Your task to perform on an android device: Open Wikipedia Image 0: 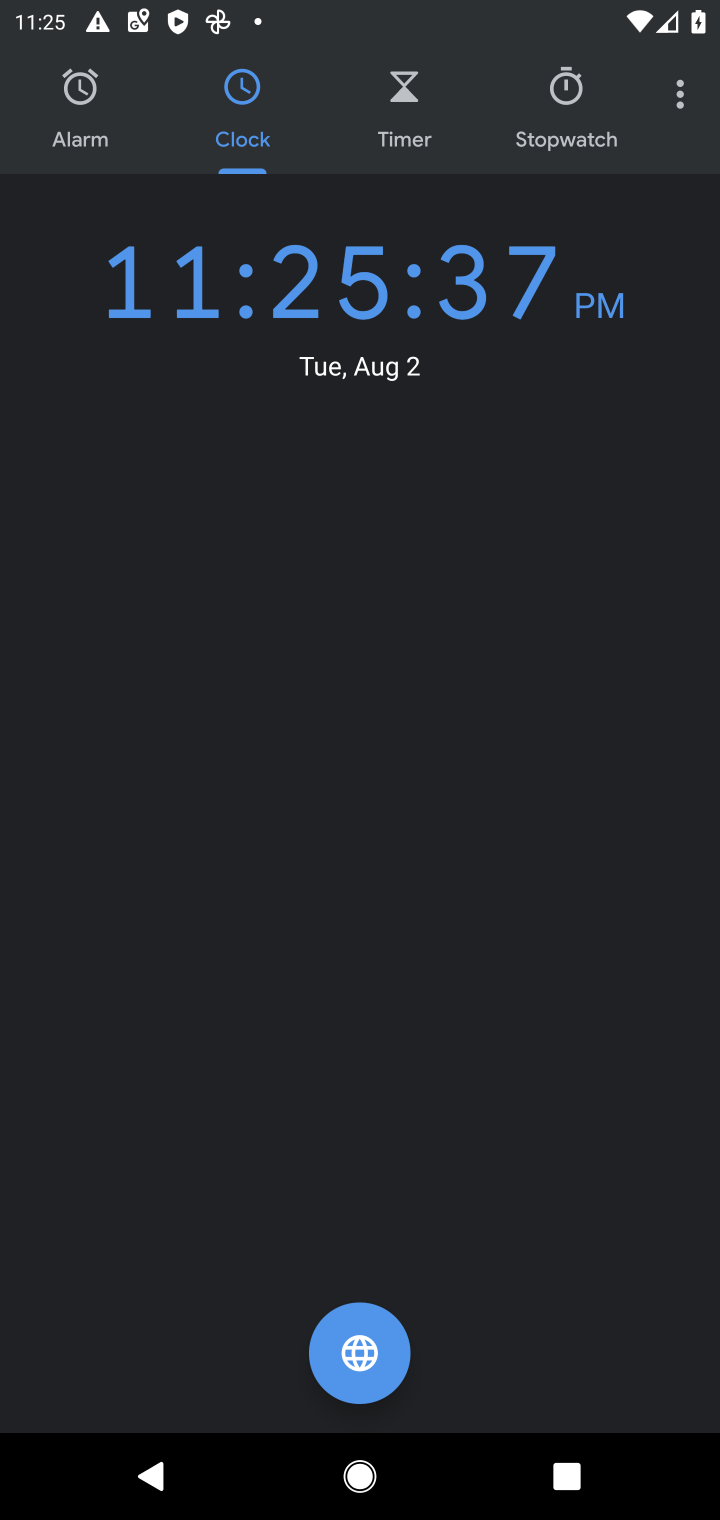
Step 0: press home button
Your task to perform on an android device: Open Wikipedia Image 1: 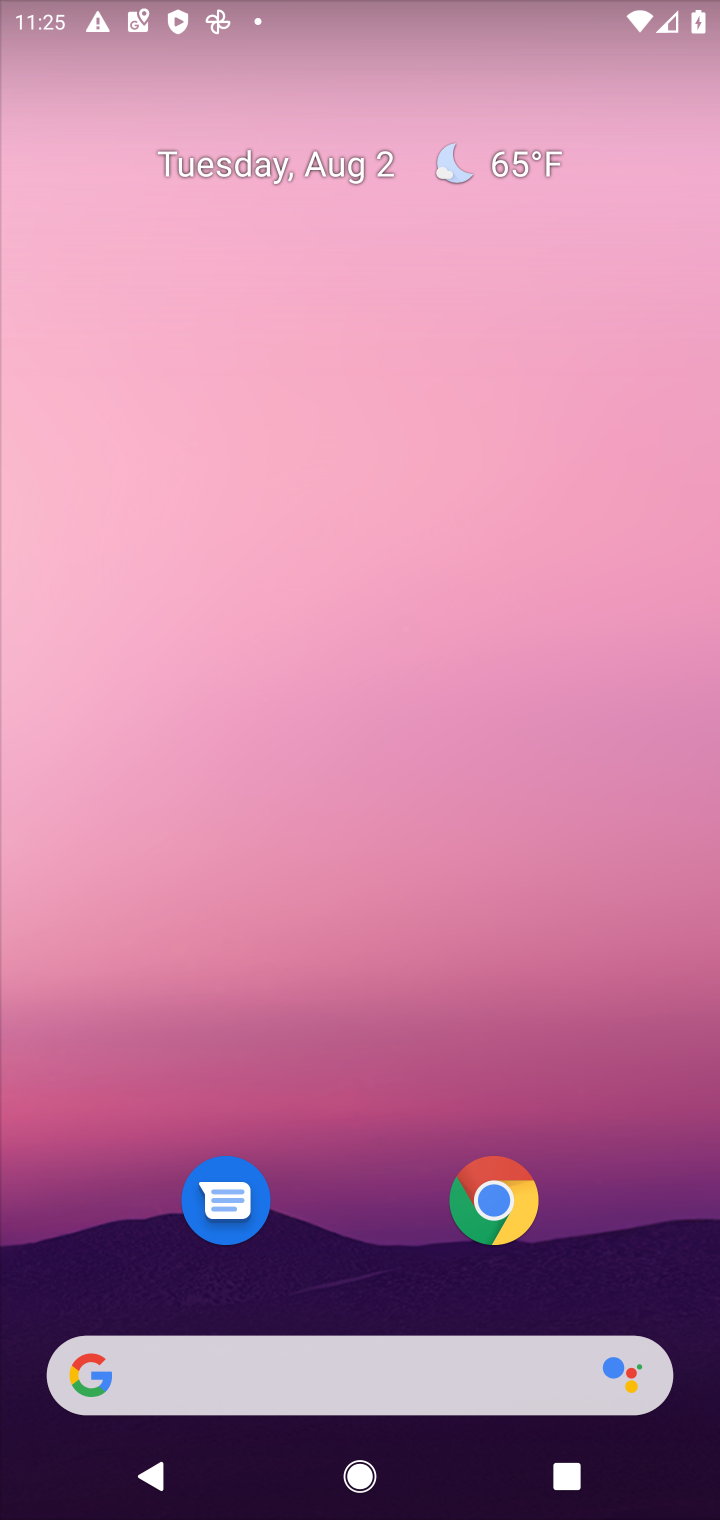
Step 1: click (500, 1204)
Your task to perform on an android device: Open Wikipedia Image 2: 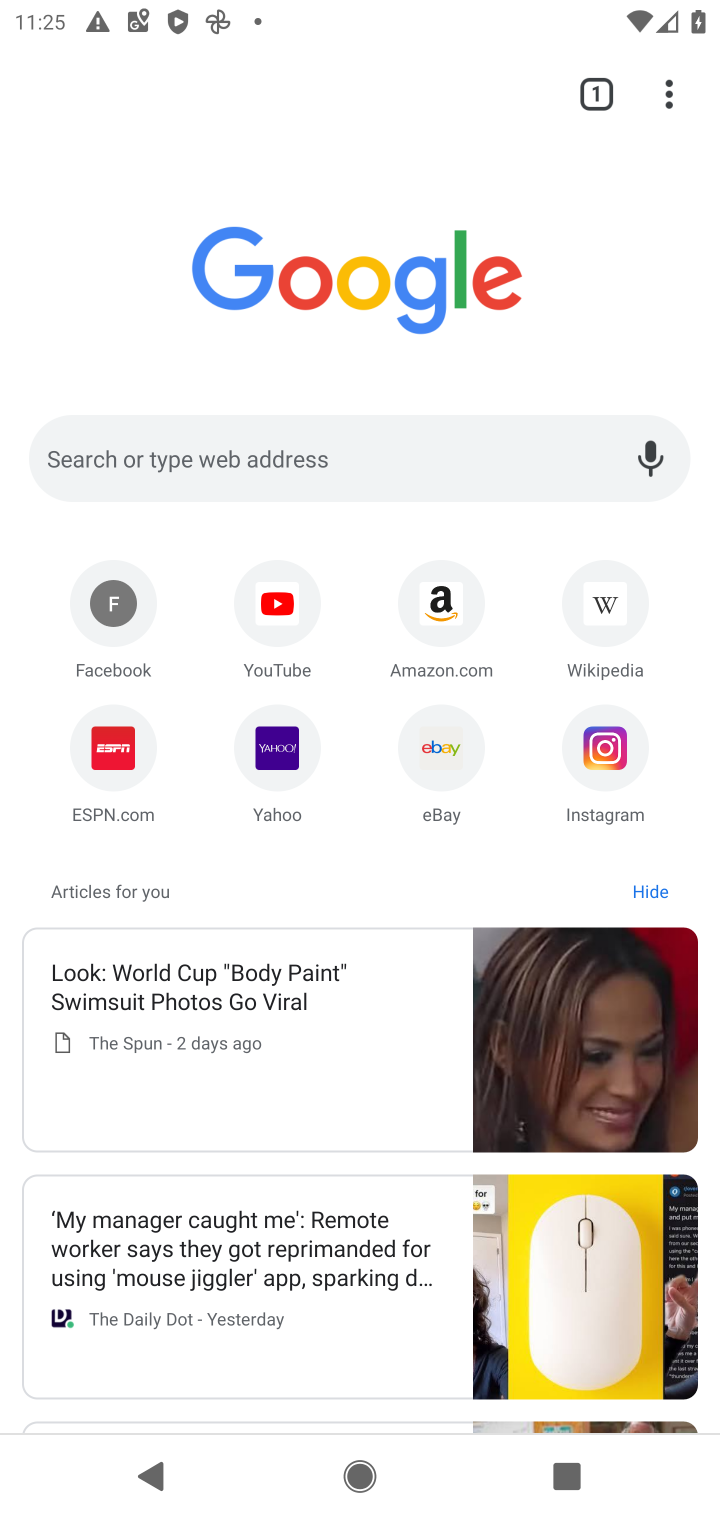
Step 2: click (393, 459)
Your task to perform on an android device: Open Wikipedia Image 3: 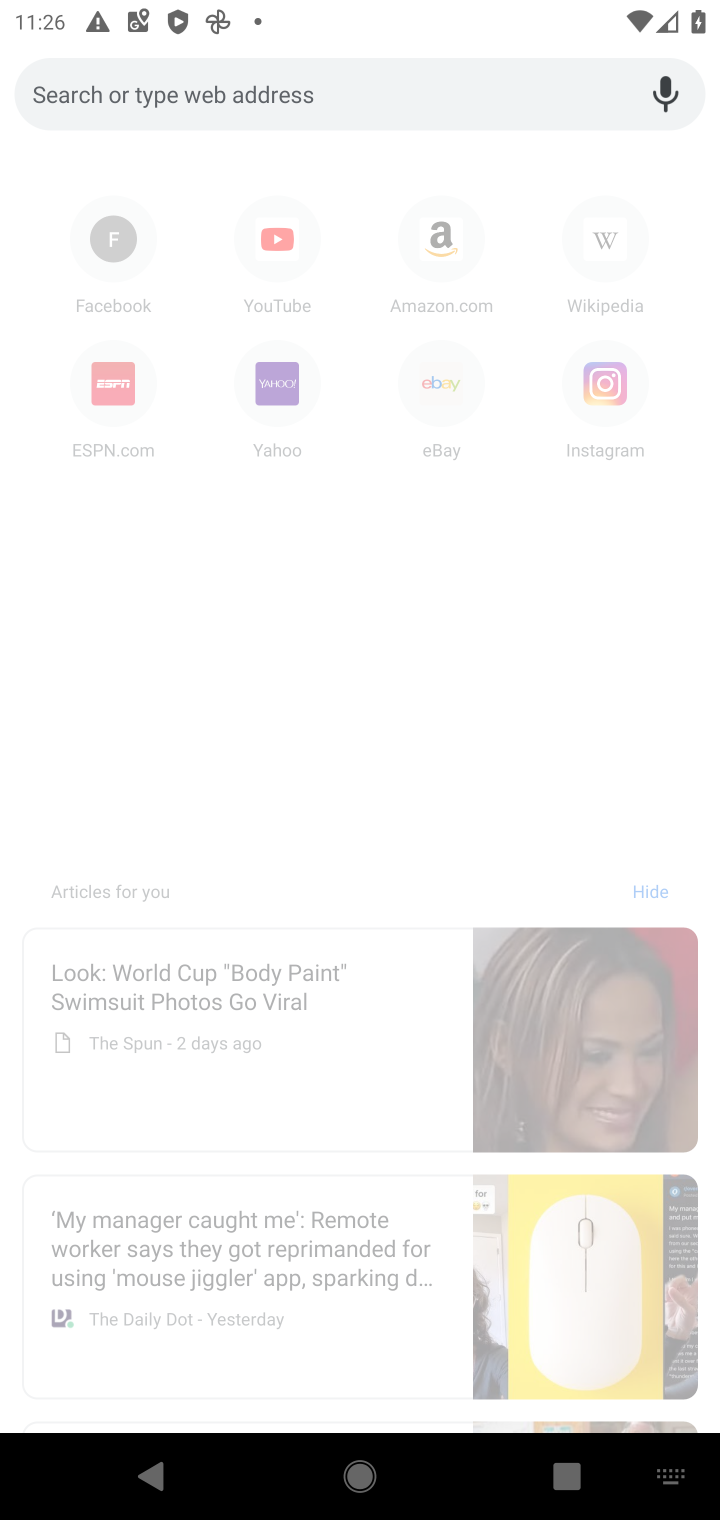
Step 3: type "wikipedia"
Your task to perform on an android device: Open Wikipedia Image 4: 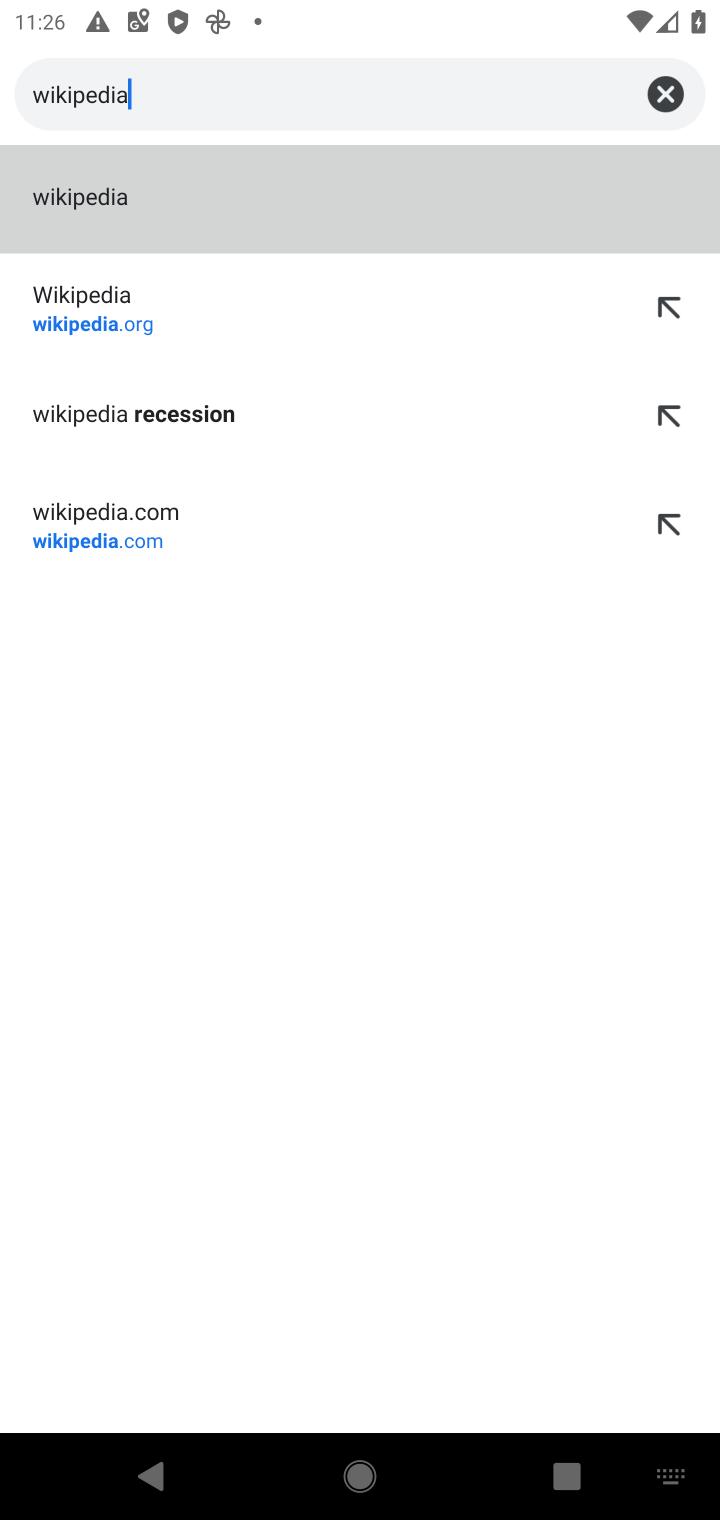
Step 4: click (92, 189)
Your task to perform on an android device: Open Wikipedia Image 5: 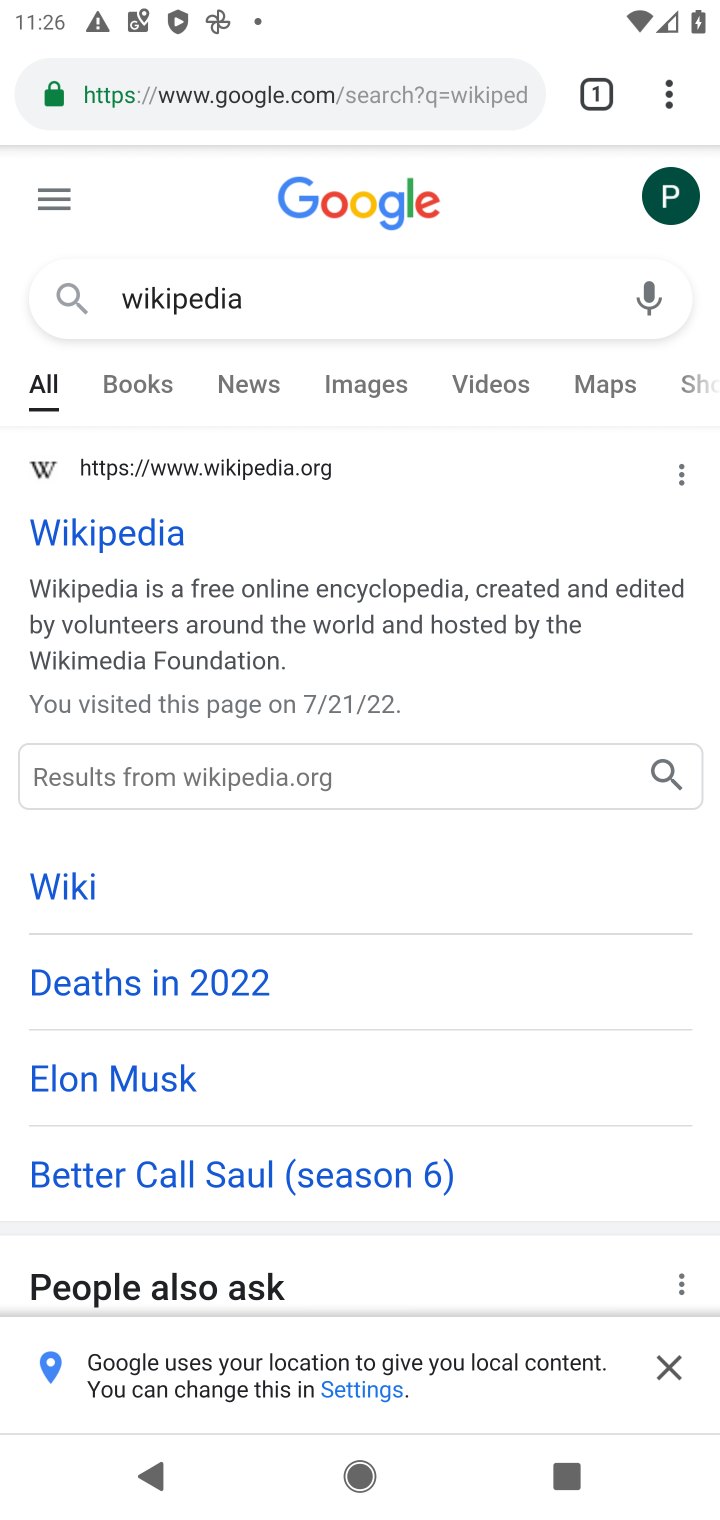
Step 5: click (90, 536)
Your task to perform on an android device: Open Wikipedia Image 6: 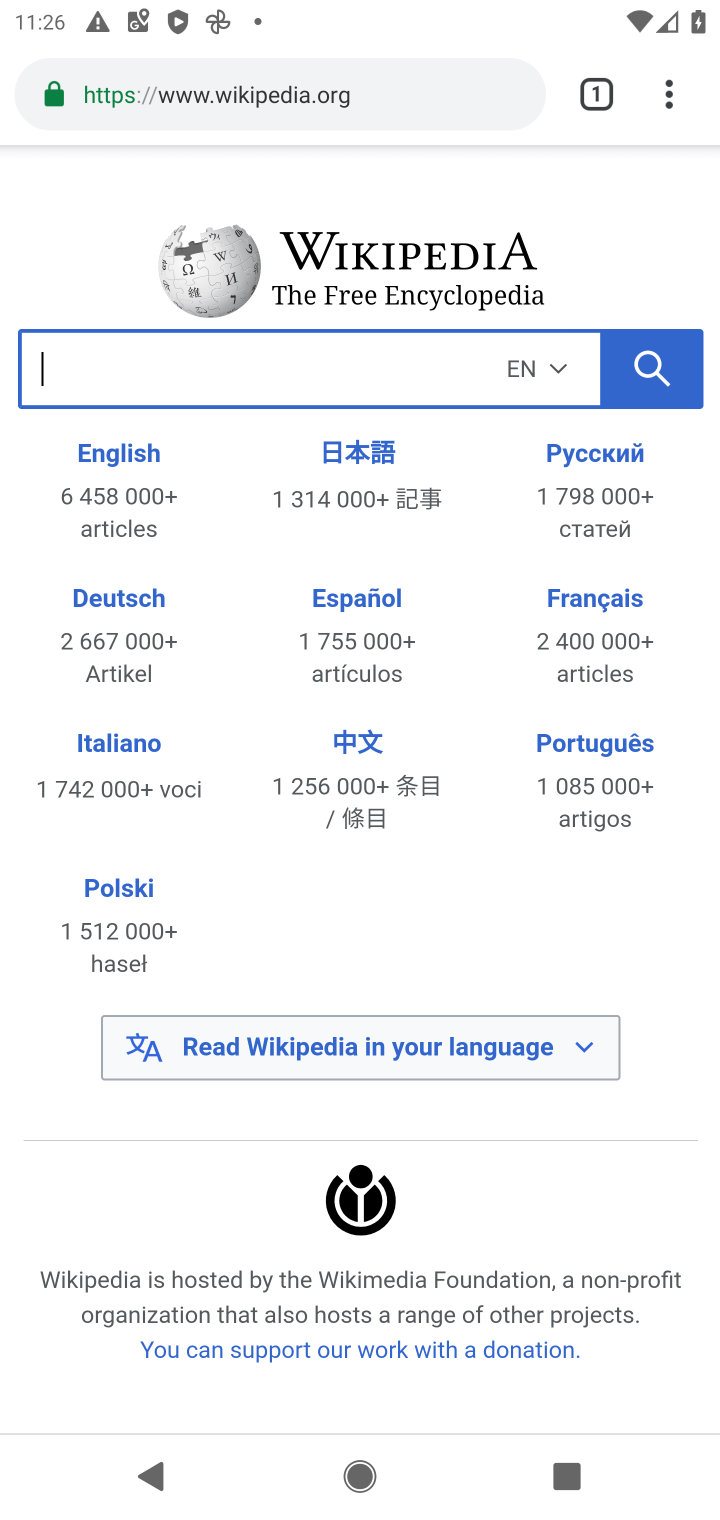
Step 6: task complete